Your task to perform on an android device: star an email in the gmail app Image 0: 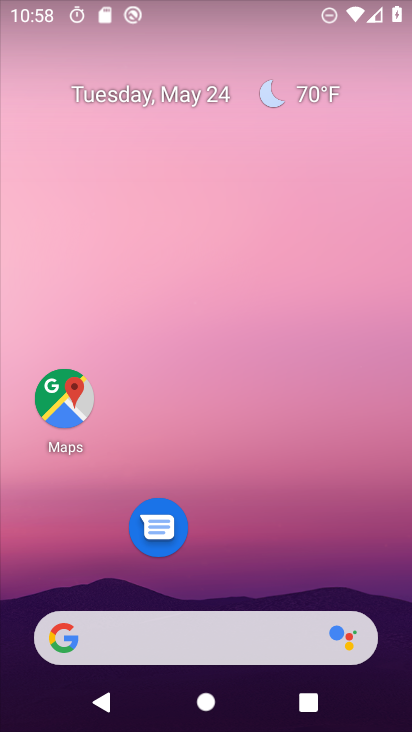
Step 0: drag from (285, 562) to (289, 143)
Your task to perform on an android device: star an email in the gmail app Image 1: 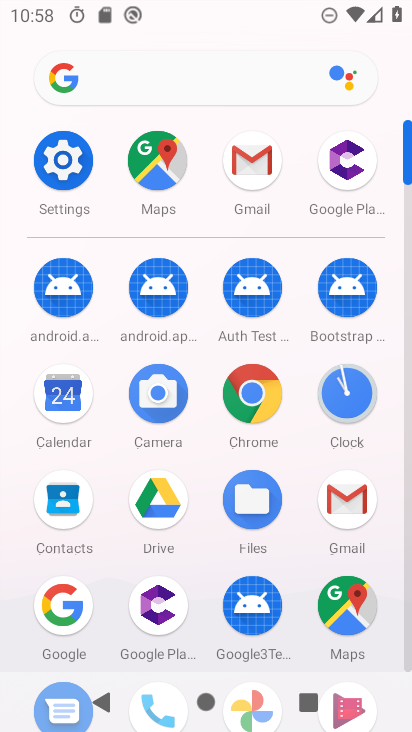
Step 1: click (261, 148)
Your task to perform on an android device: star an email in the gmail app Image 2: 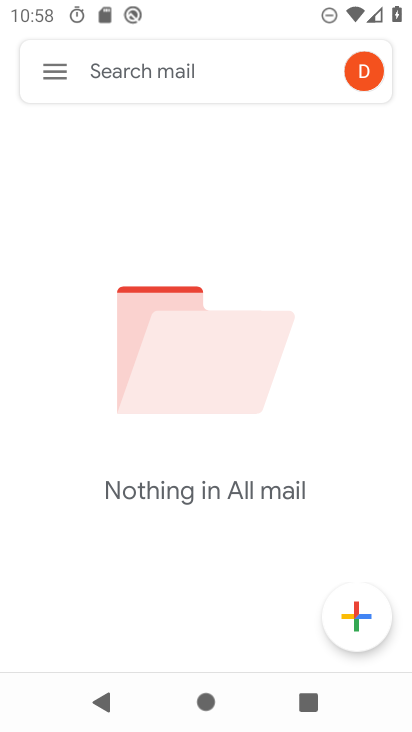
Step 2: task complete